Your task to perform on an android device: Open Google Maps Image 0: 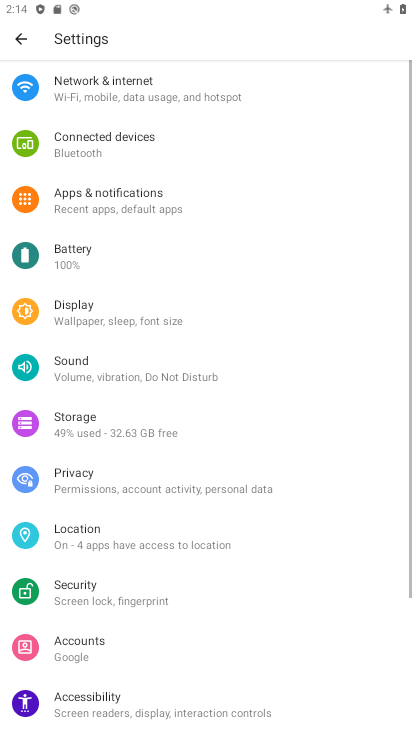
Step 0: press home button
Your task to perform on an android device: Open Google Maps Image 1: 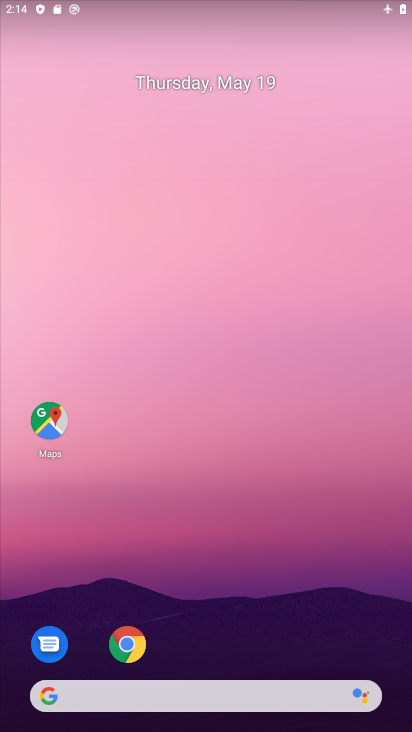
Step 1: click (43, 417)
Your task to perform on an android device: Open Google Maps Image 2: 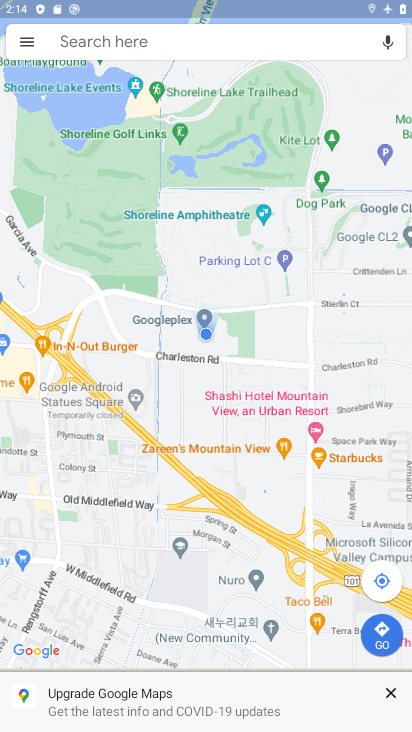
Step 2: task complete